Your task to perform on an android device: open the mobile data screen to see how much data has been used Image 0: 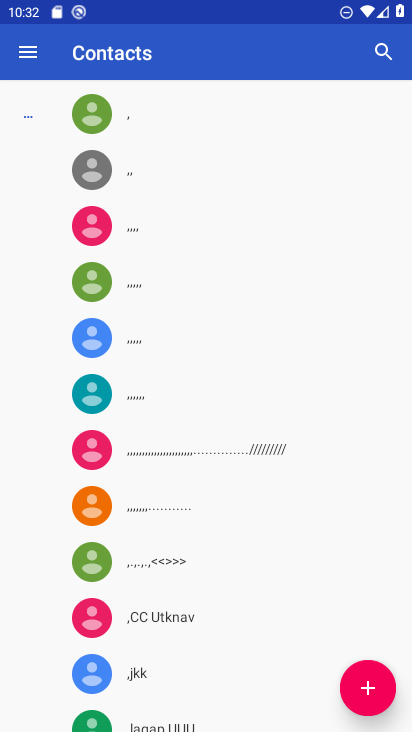
Step 0: press home button
Your task to perform on an android device: open the mobile data screen to see how much data has been used Image 1: 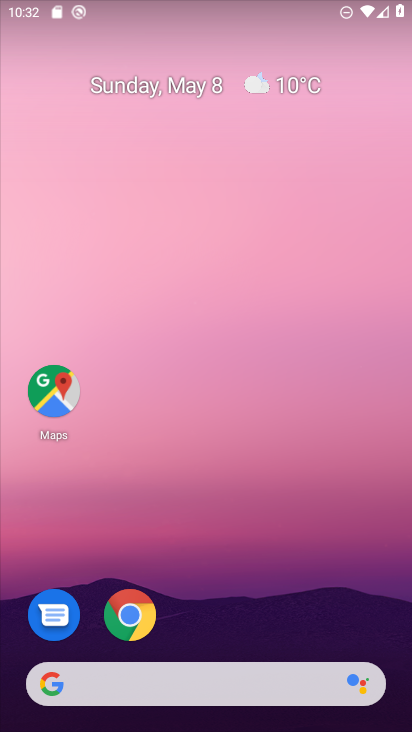
Step 1: drag from (312, 603) to (308, 121)
Your task to perform on an android device: open the mobile data screen to see how much data has been used Image 2: 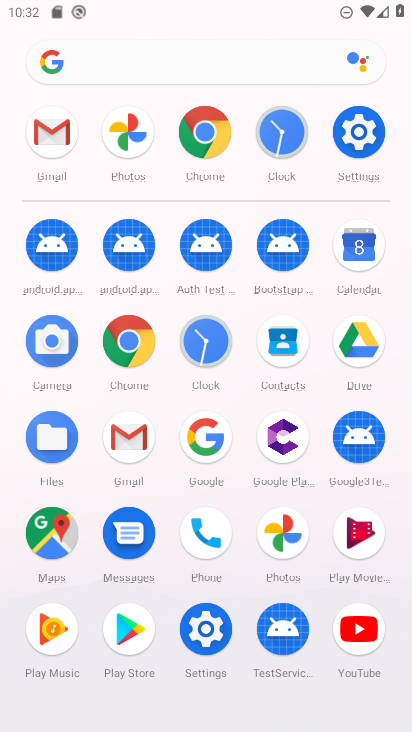
Step 2: click (361, 136)
Your task to perform on an android device: open the mobile data screen to see how much data has been used Image 3: 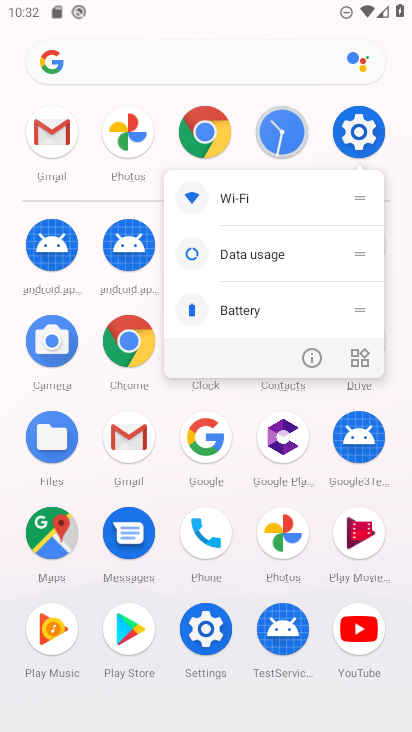
Step 3: click (371, 123)
Your task to perform on an android device: open the mobile data screen to see how much data has been used Image 4: 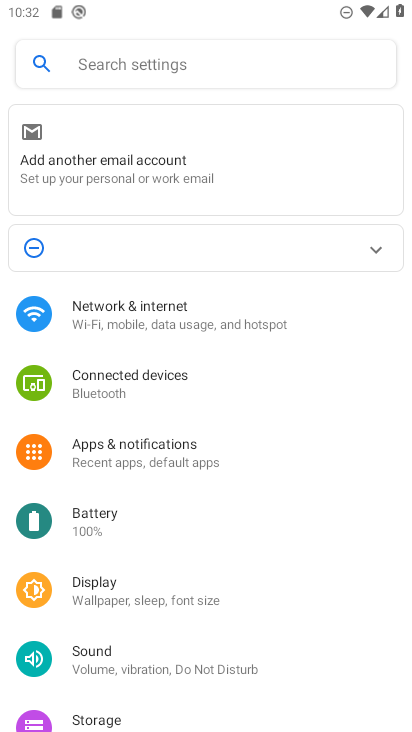
Step 4: click (180, 319)
Your task to perform on an android device: open the mobile data screen to see how much data has been used Image 5: 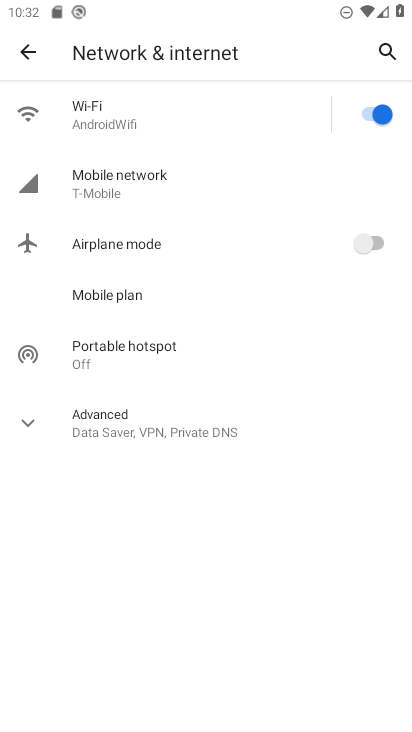
Step 5: click (179, 188)
Your task to perform on an android device: open the mobile data screen to see how much data has been used Image 6: 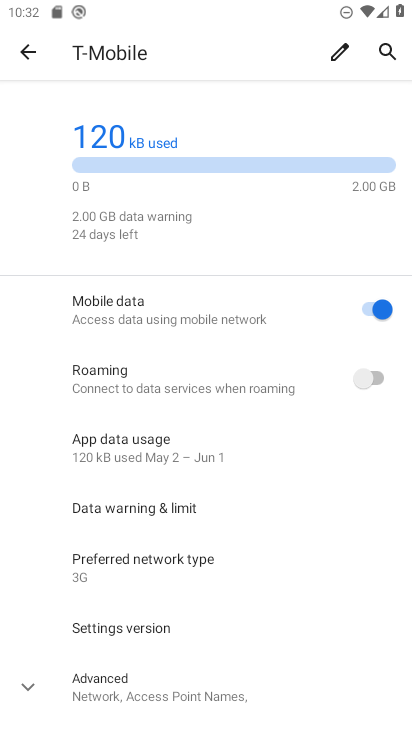
Step 6: task complete